Your task to perform on an android device: Open sound settings Image 0: 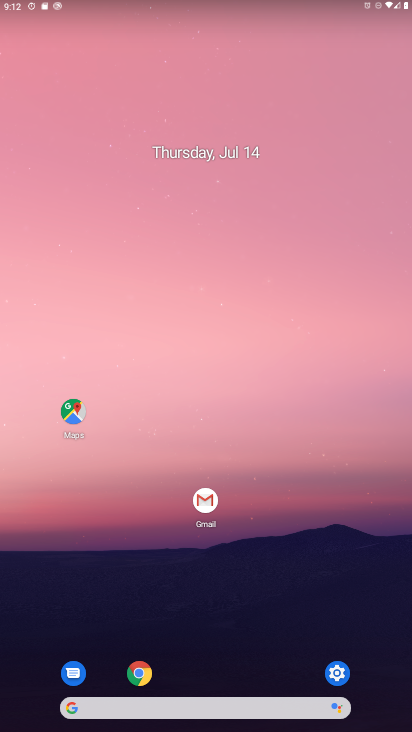
Step 0: press home button
Your task to perform on an android device: Open sound settings Image 1: 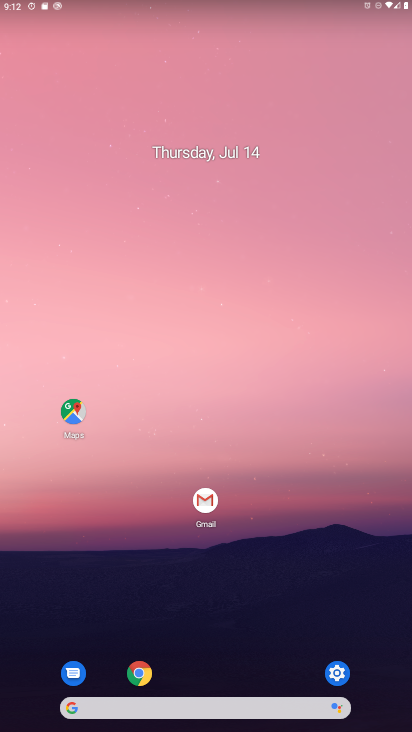
Step 1: click (336, 672)
Your task to perform on an android device: Open sound settings Image 2: 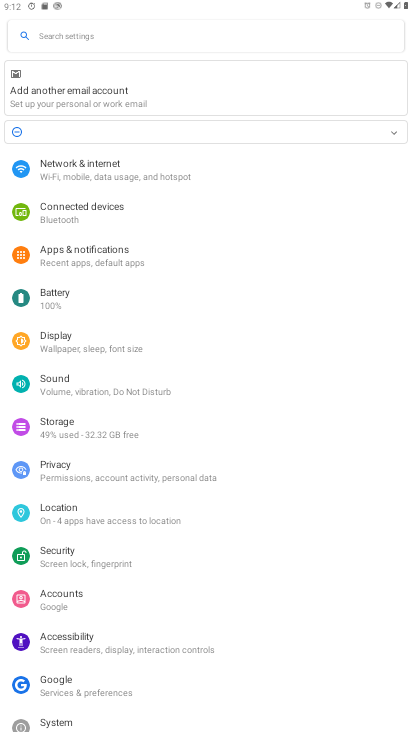
Step 2: click (90, 376)
Your task to perform on an android device: Open sound settings Image 3: 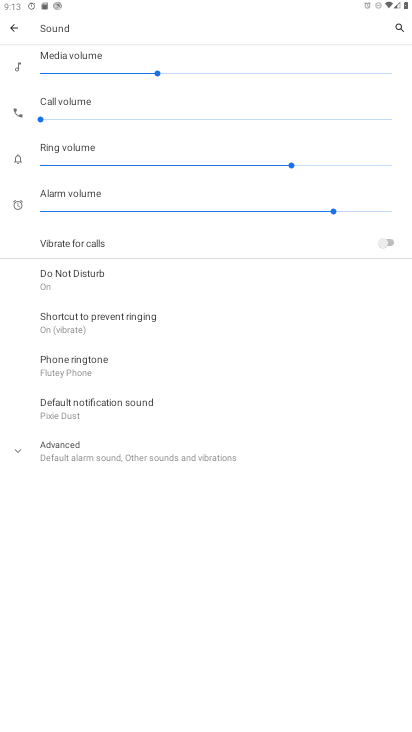
Step 3: task complete